Your task to perform on an android device: toggle translation in the chrome app Image 0: 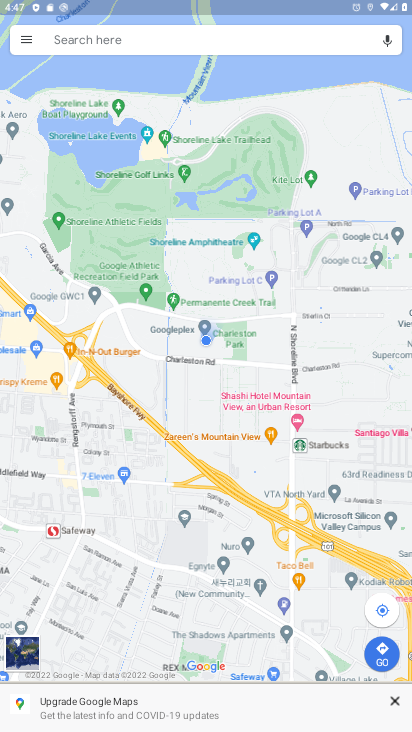
Step 0: press home button
Your task to perform on an android device: toggle translation in the chrome app Image 1: 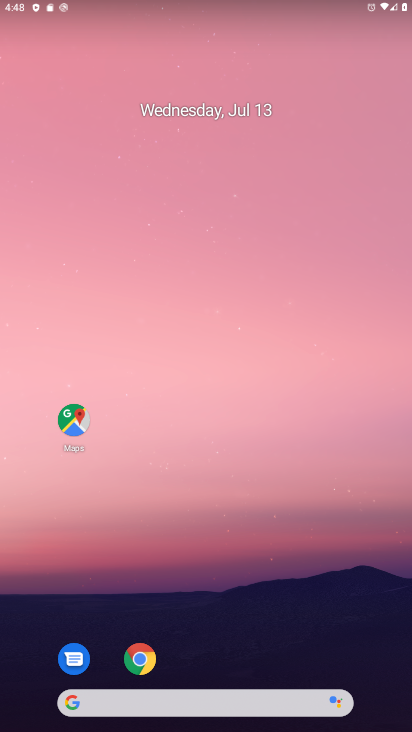
Step 1: drag from (263, 633) to (173, 93)
Your task to perform on an android device: toggle translation in the chrome app Image 2: 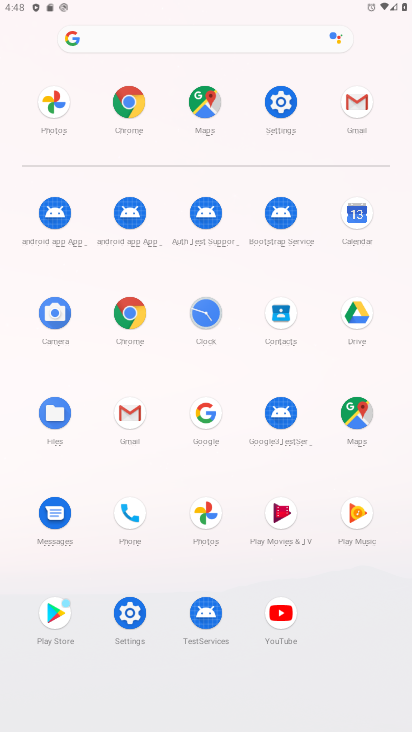
Step 2: click (130, 315)
Your task to perform on an android device: toggle translation in the chrome app Image 3: 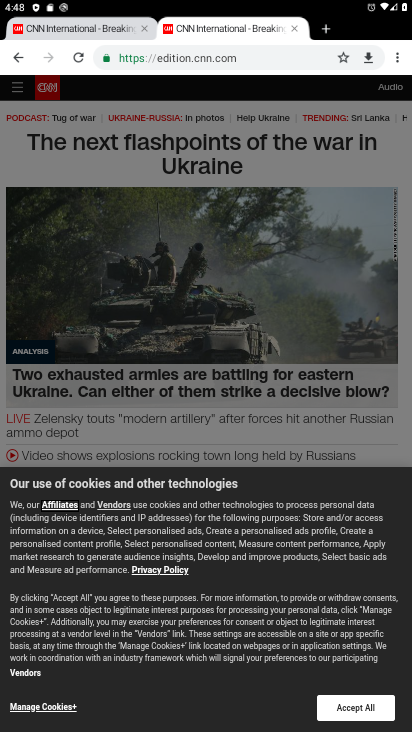
Step 3: drag from (399, 54) to (299, 355)
Your task to perform on an android device: toggle translation in the chrome app Image 4: 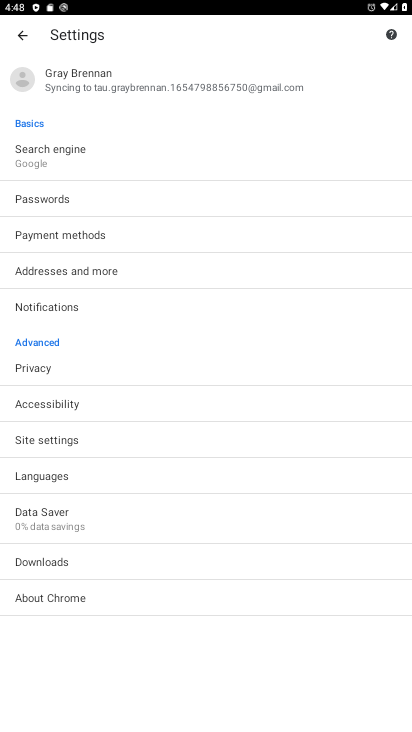
Step 4: click (49, 482)
Your task to perform on an android device: toggle translation in the chrome app Image 5: 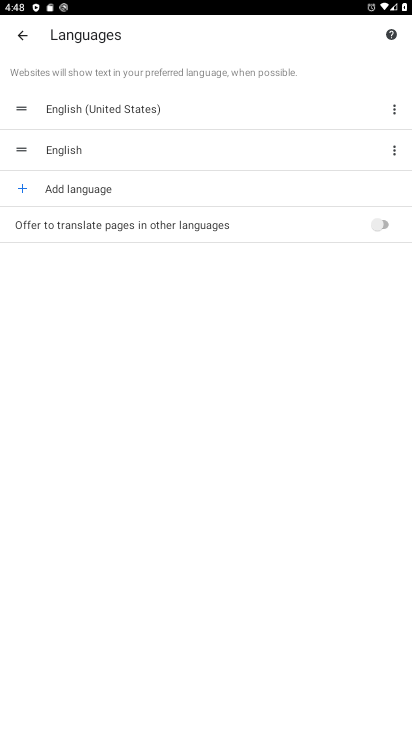
Step 5: click (369, 231)
Your task to perform on an android device: toggle translation in the chrome app Image 6: 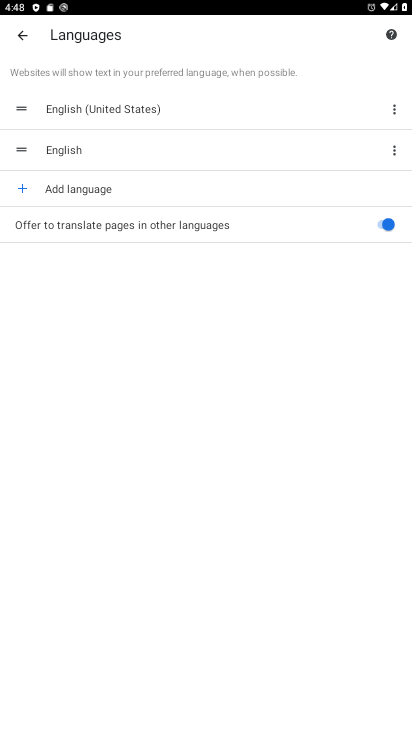
Step 6: task complete